Your task to perform on an android device: turn on improve location accuracy Image 0: 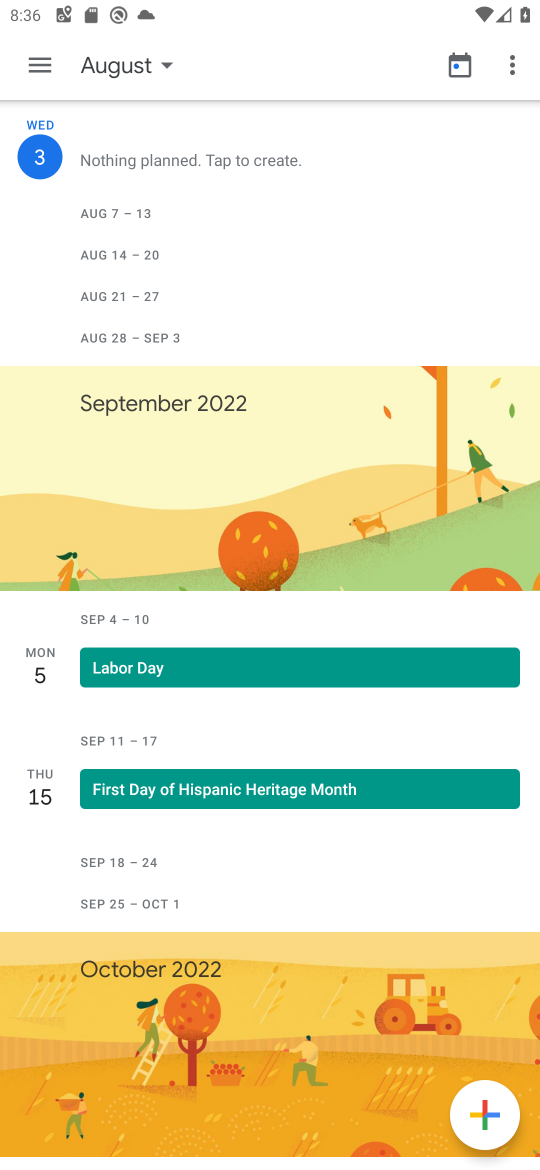
Step 0: press home button
Your task to perform on an android device: turn on improve location accuracy Image 1: 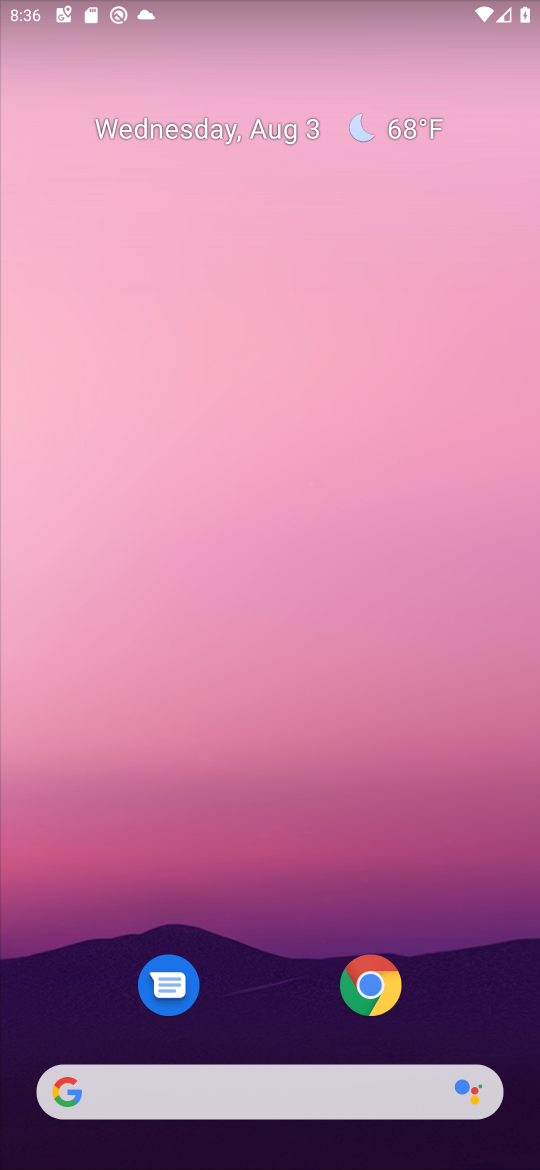
Step 1: drag from (241, 897) to (198, 178)
Your task to perform on an android device: turn on improve location accuracy Image 2: 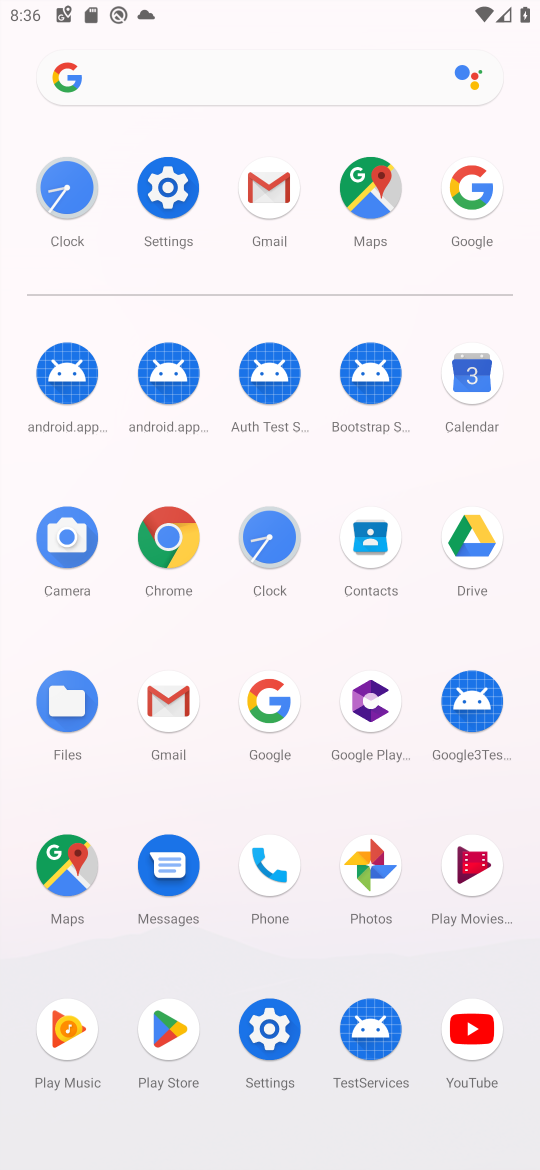
Step 2: click (179, 182)
Your task to perform on an android device: turn on improve location accuracy Image 3: 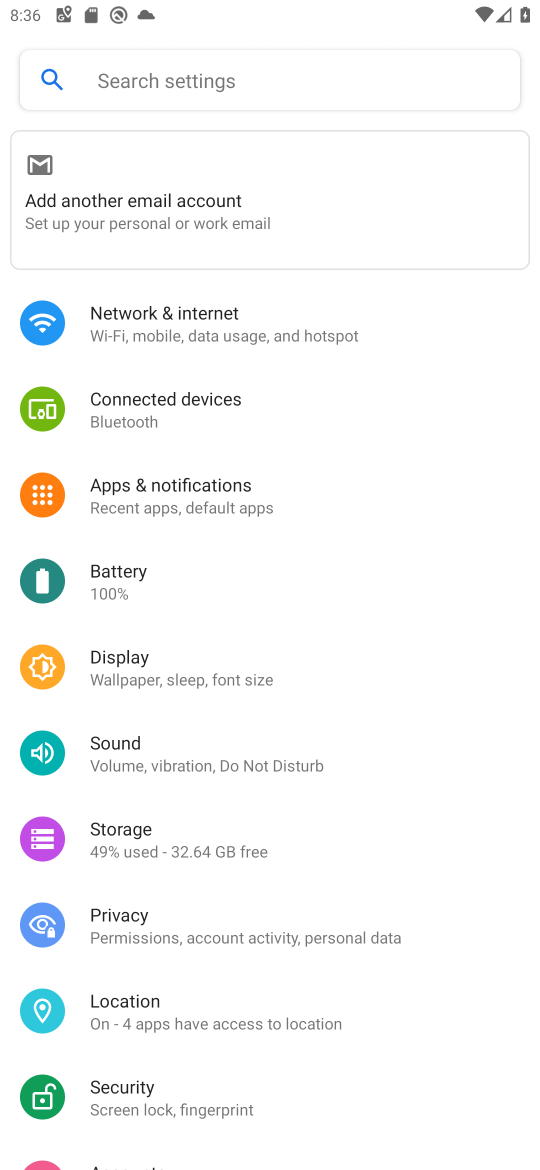
Step 3: click (231, 1010)
Your task to perform on an android device: turn on improve location accuracy Image 4: 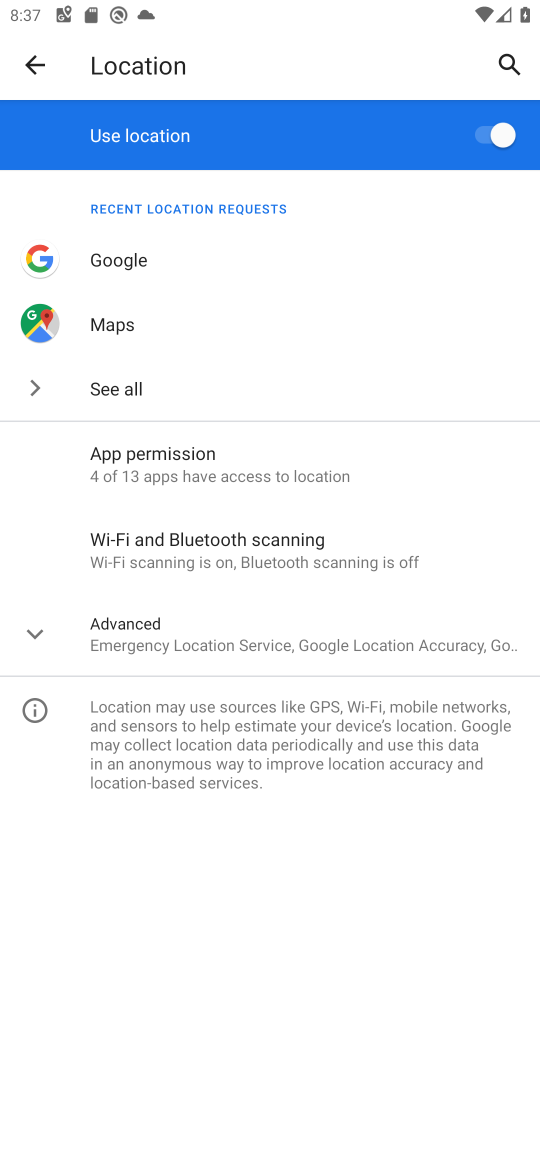
Step 4: click (234, 636)
Your task to perform on an android device: turn on improve location accuracy Image 5: 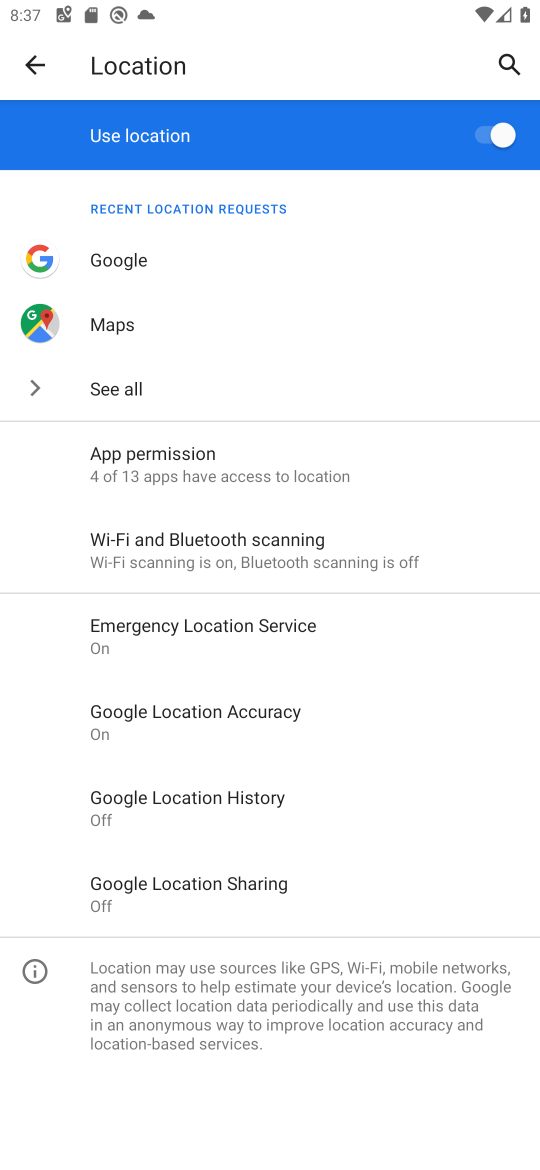
Step 5: click (265, 720)
Your task to perform on an android device: turn on improve location accuracy Image 6: 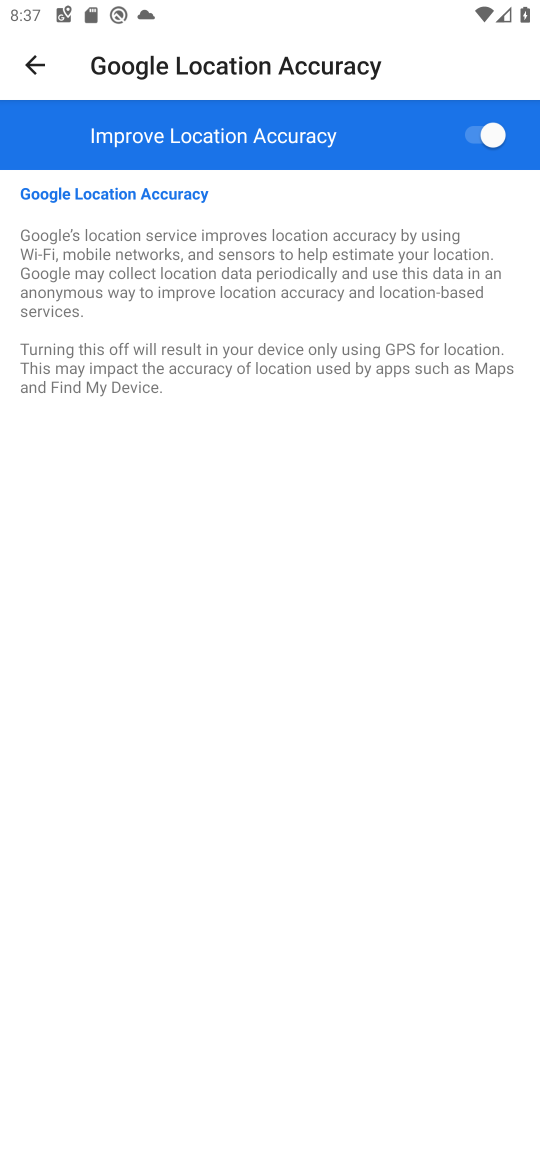
Step 6: task complete